Your task to perform on an android device: Go to wifi settings Image 0: 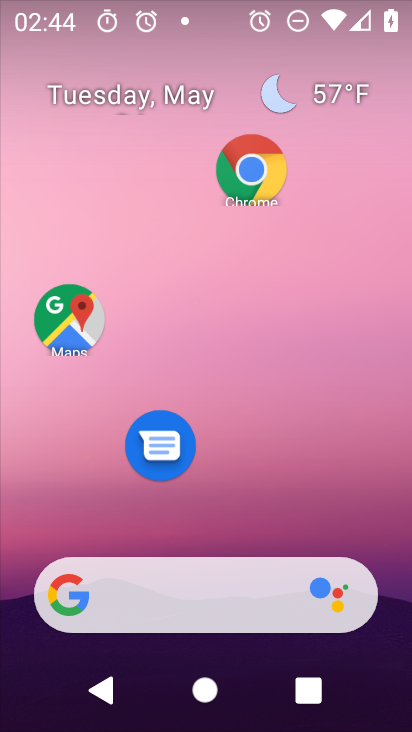
Step 0: drag from (227, 713) to (187, 82)
Your task to perform on an android device: Go to wifi settings Image 1: 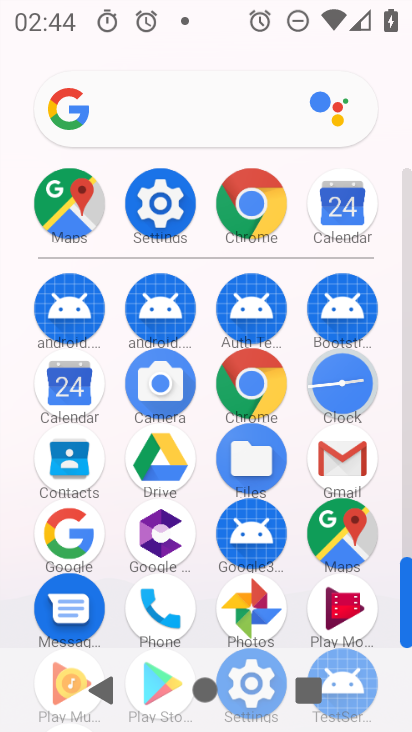
Step 1: click (159, 209)
Your task to perform on an android device: Go to wifi settings Image 2: 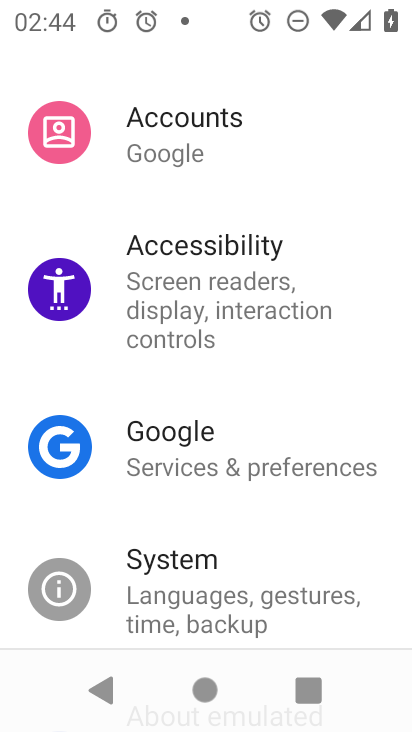
Step 2: drag from (250, 184) to (240, 600)
Your task to perform on an android device: Go to wifi settings Image 3: 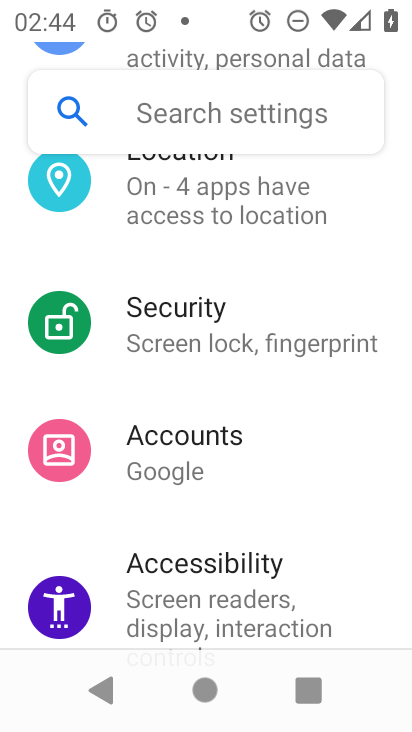
Step 3: drag from (253, 209) to (245, 550)
Your task to perform on an android device: Go to wifi settings Image 4: 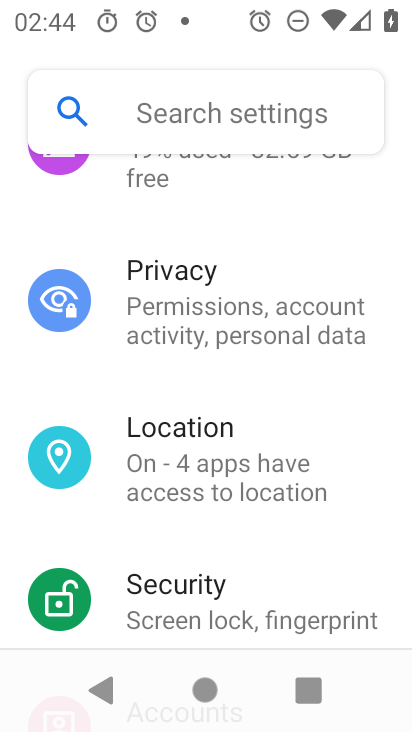
Step 4: drag from (247, 235) to (242, 655)
Your task to perform on an android device: Go to wifi settings Image 5: 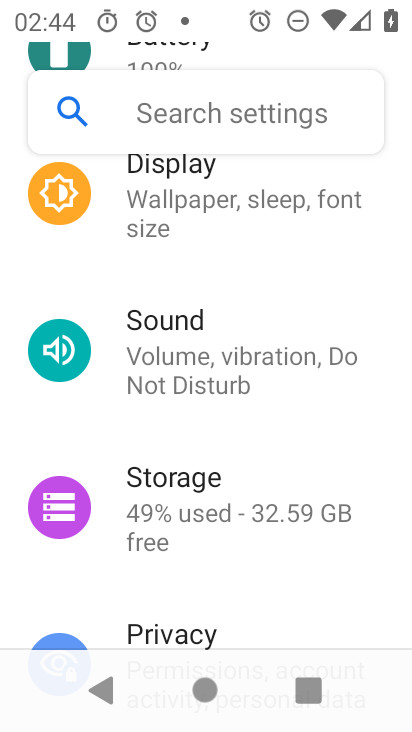
Step 5: drag from (270, 192) to (269, 613)
Your task to perform on an android device: Go to wifi settings Image 6: 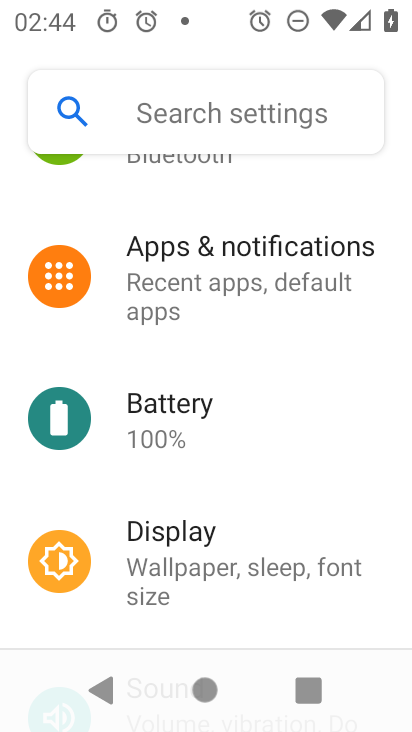
Step 6: drag from (243, 192) to (245, 656)
Your task to perform on an android device: Go to wifi settings Image 7: 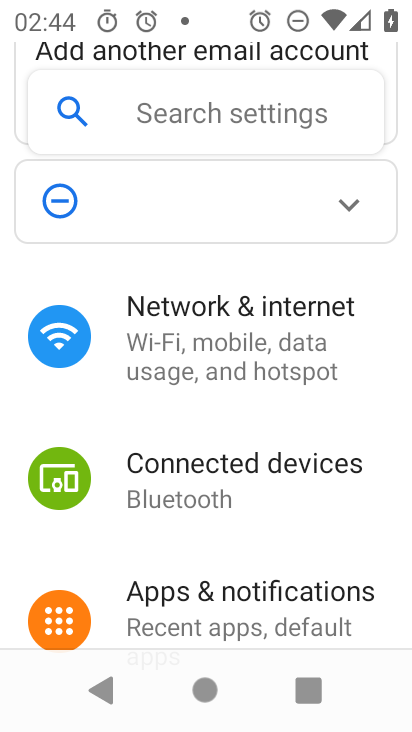
Step 7: click (192, 332)
Your task to perform on an android device: Go to wifi settings Image 8: 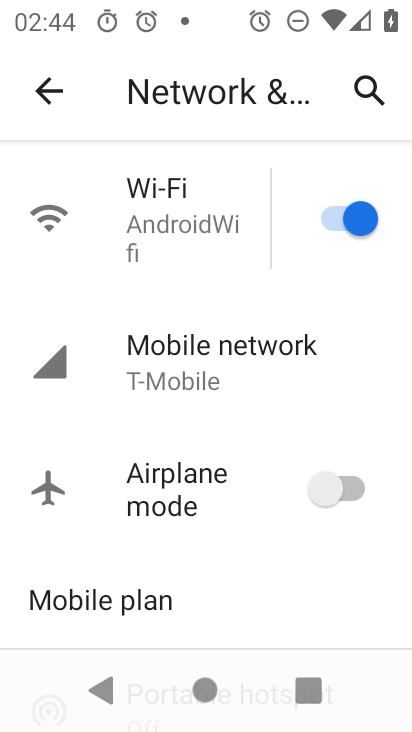
Step 8: click (160, 217)
Your task to perform on an android device: Go to wifi settings Image 9: 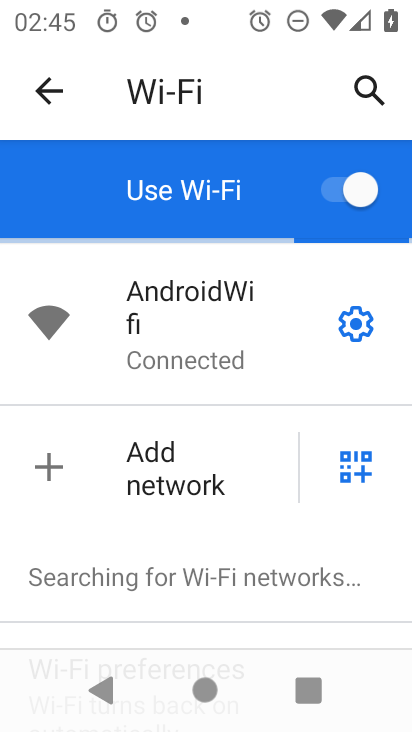
Step 9: task complete